Your task to perform on an android device: Open the map Image 0: 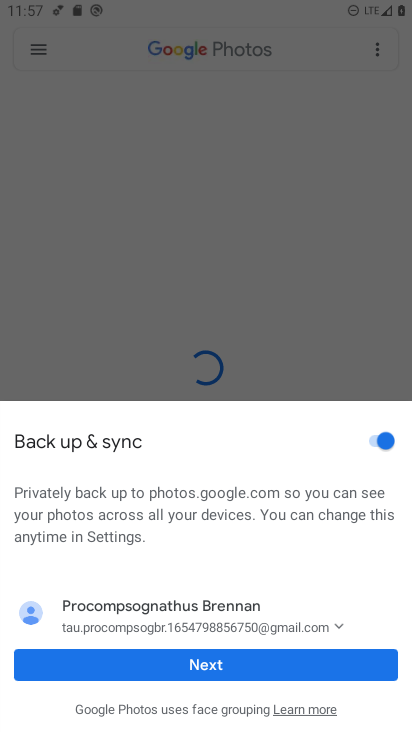
Step 0: press home button
Your task to perform on an android device: Open the map Image 1: 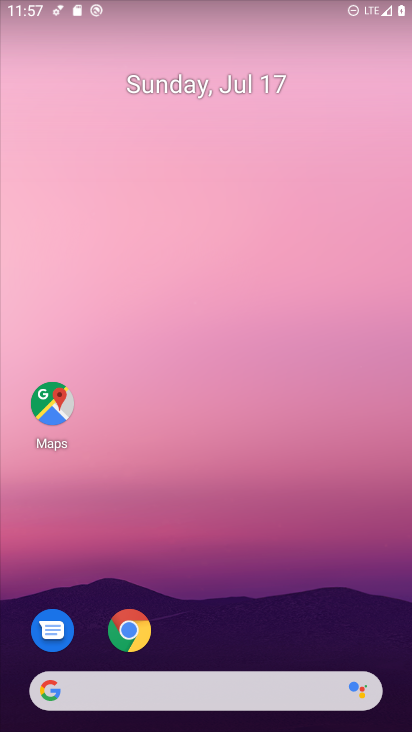
Step 1: click (58, 430)
Your task to perform on an android device: Open the map Image 2: 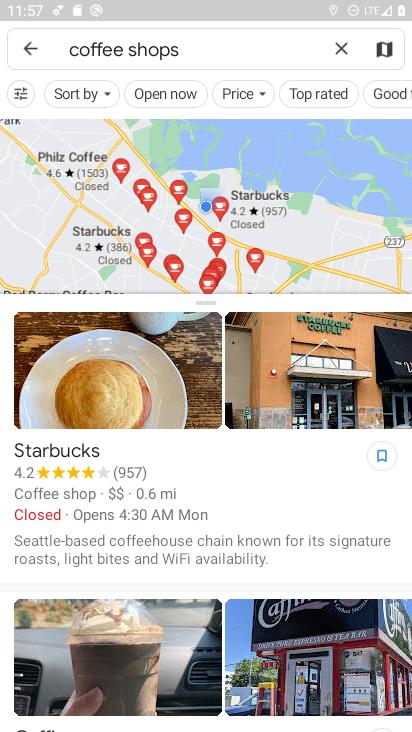
Step 2: task complete